Your task to perform on an android device: all mails in gmail Image 0: 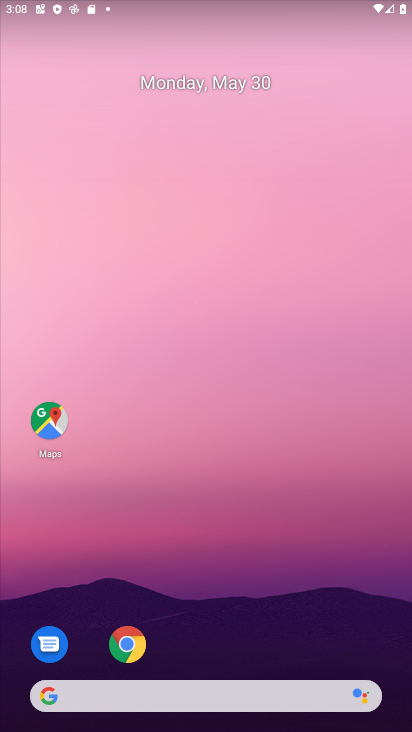
Step 0: drag from (315, 655) to (271, 222)
Your task to perform on an android device: all mails in gmail Image 1: 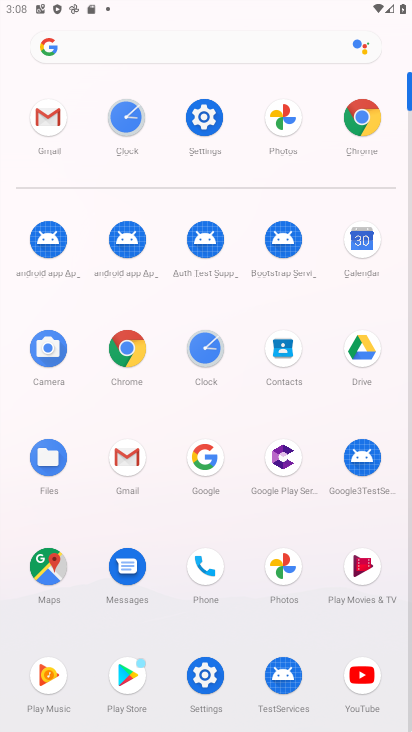
Step 1: click (42, 140)
Your task to perform on an android device: all mails in gmail Image 2: 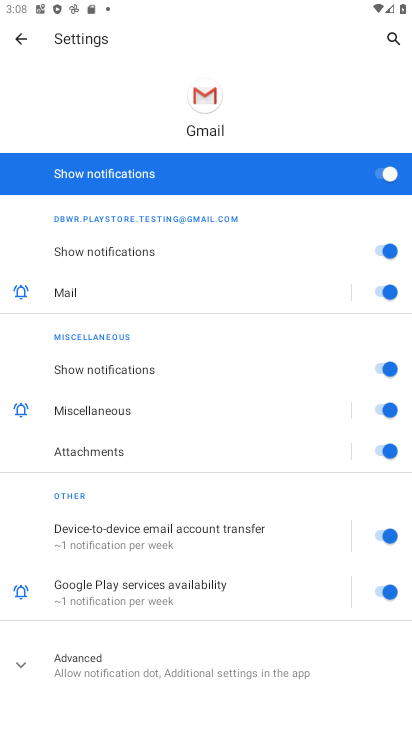
Step 2: click (16, 43)
Your task to perform on an android device: all mails in gmail Image 3: 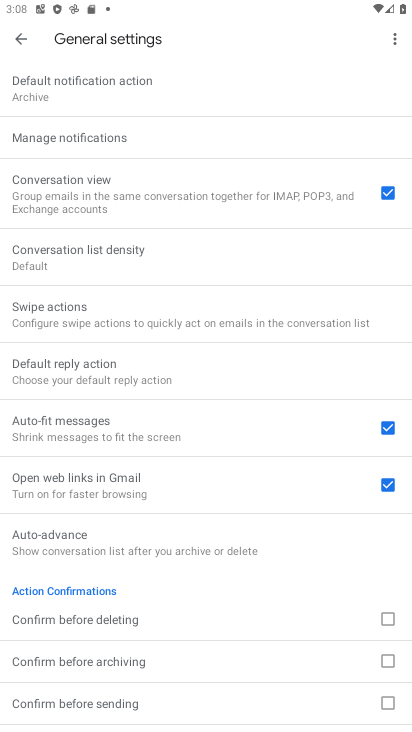
Step 3: click (16, 43)
Your task to perform on an android device: all mails in gmail Image 4: 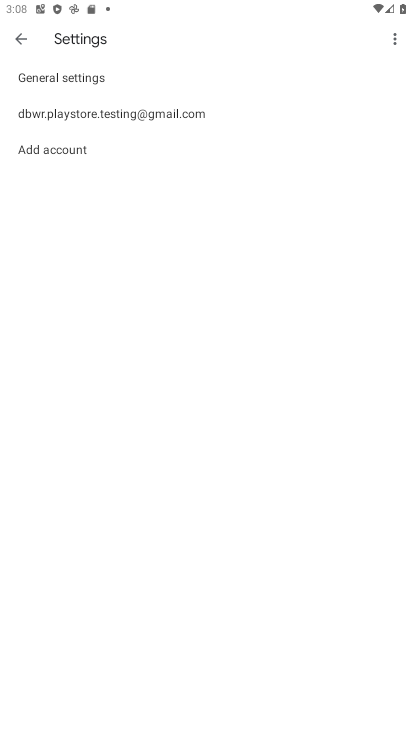
Step 4: task complete